Your task to perform on an android device: open app "Upside-Cash back on gas & food" Image 0: 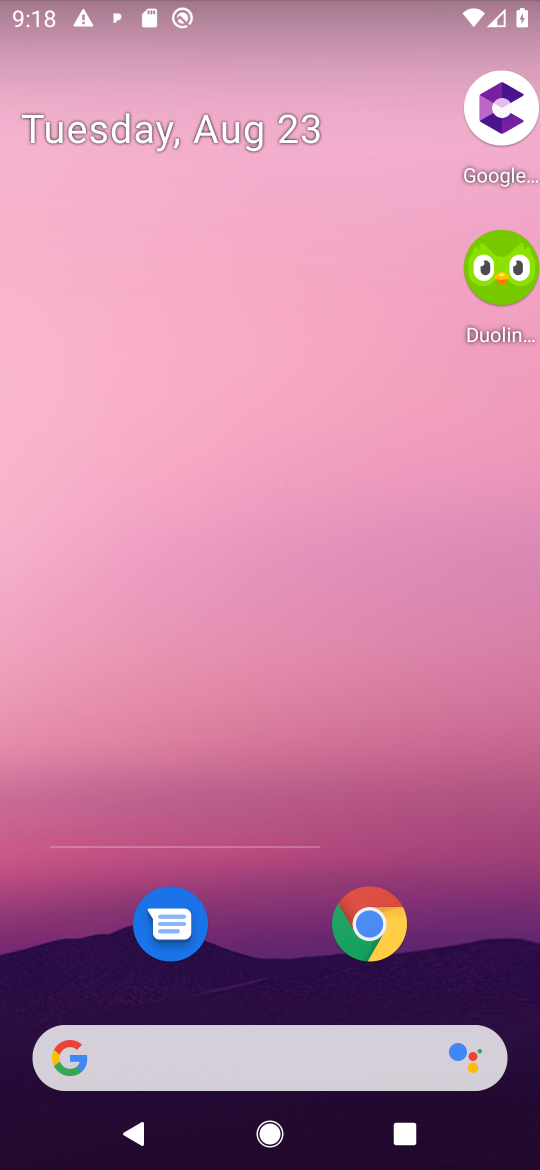
Step 0: press home button
Your task to perform on an android device: open app "Upside-Cash back on gas & food" Image 1: 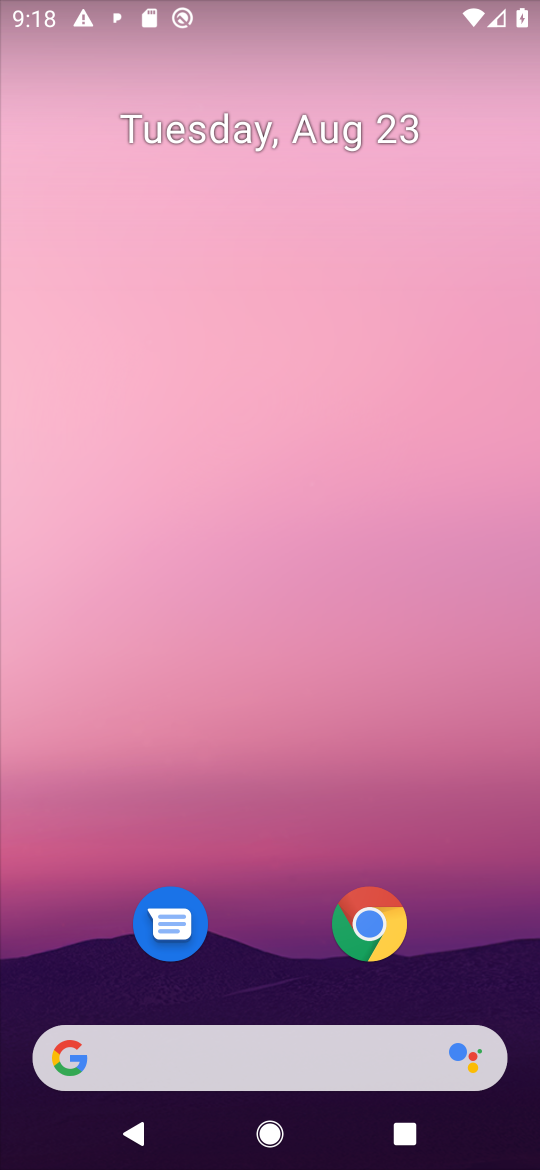
Step 1: drag from (434, 947) to (426, 126)
Your task to perform on an android device: open app "Upside-Cash back on gas & food" Image 2: 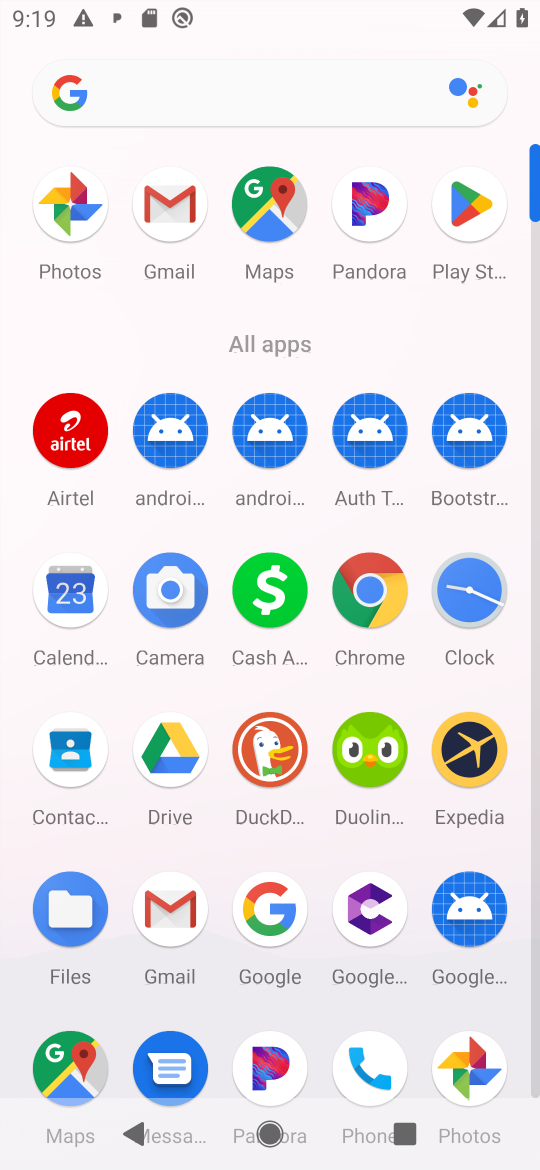
Step 2: click (463, 198)
Your task to perform on an android device: open app "Upside-Cash back on gas & food" Image 3: 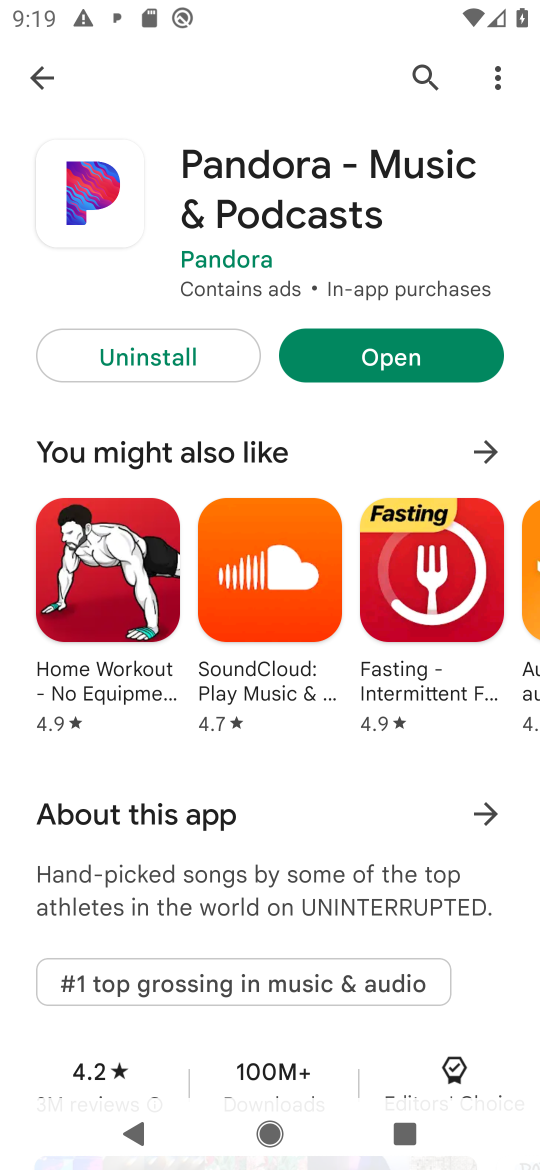
Step 3: press back button
Your task to perform on an android device: open app "Upside-Cash back on gas & food" Image 4: 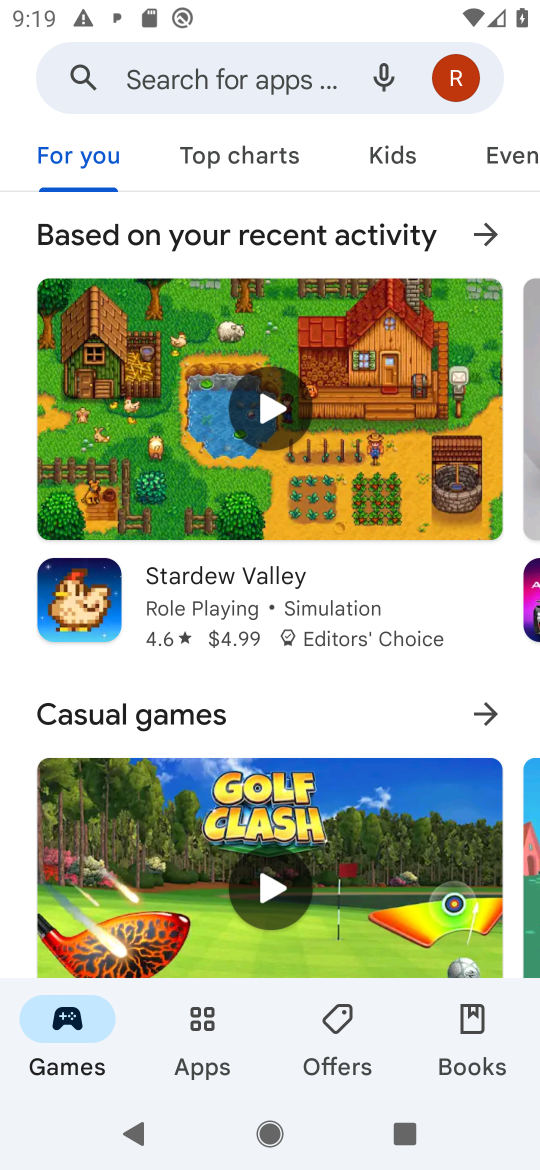
Step 4: click (249, 71)
Your task to perform on an android device: open app "Upside-Cash back on gas & food" Image 5: 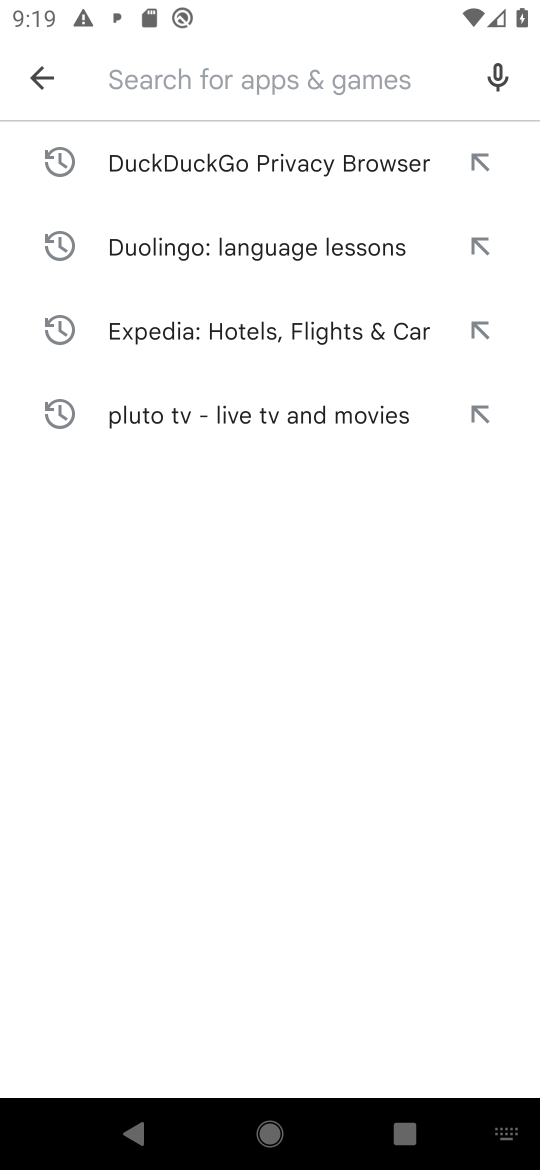
Step 5: type "Upside-Cash back on gas & food"
Your task to perform on an android device: open app "Upside-Cash back on gas & food" Image 6: 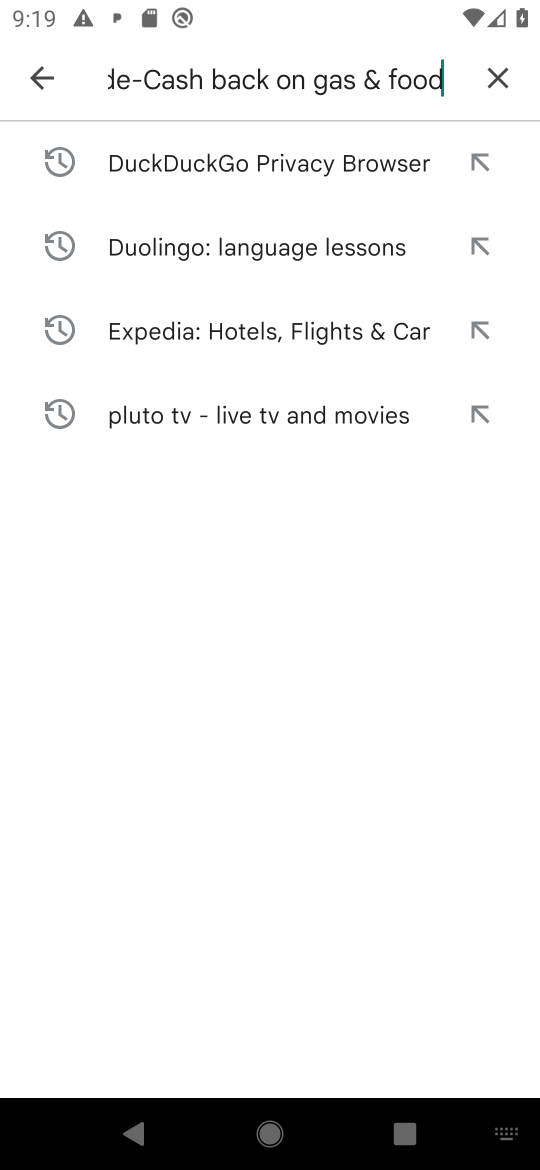
Step 6: press enter
Your task to perform on an android device: open app "Upside-Cash back on gas & food" Image 7: 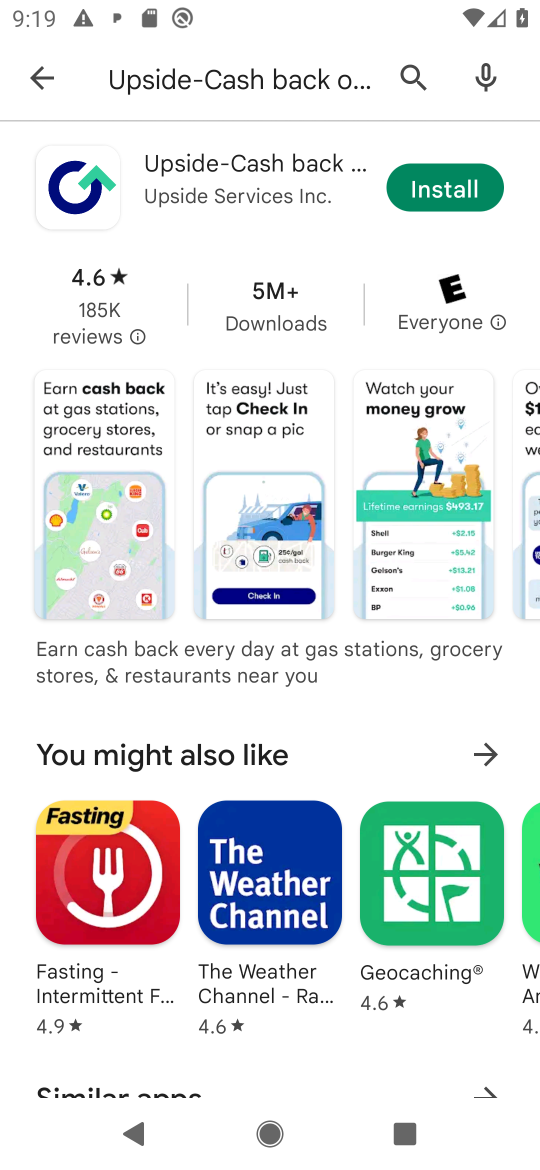
Step 7: task complete